Your task to perform on an android device: Open Chrome and go to settings Image 0: 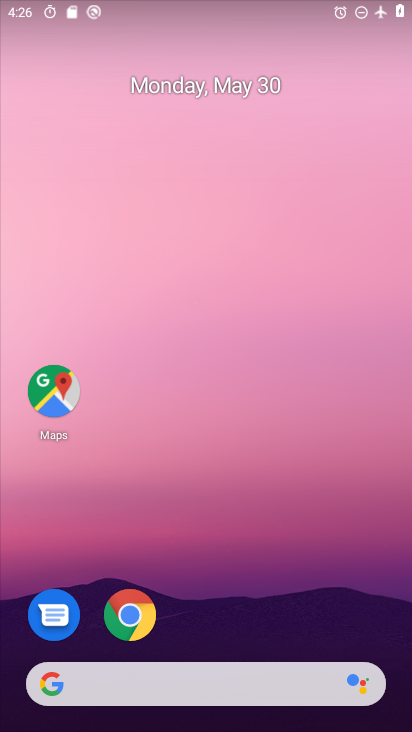
Step 0: click (129, 614)
Your task to perform on an android device: Open Chrome and go to settings Image 1: 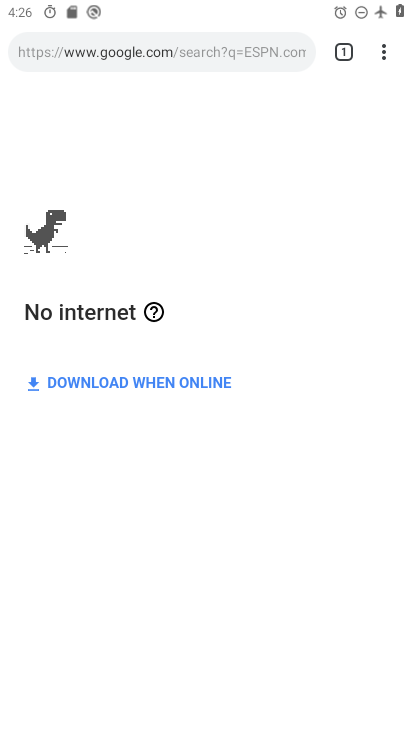
Step 1: click (384, 49)
Your task to perform on an android device: Open Chrome and go to settings Image 2: 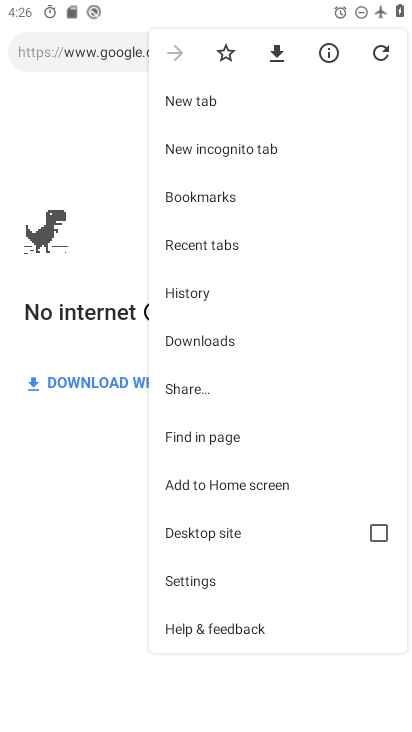
Step 2: click (202, 577)
Your task to perform on an android device: Open Chrome and go to settings Image 3: 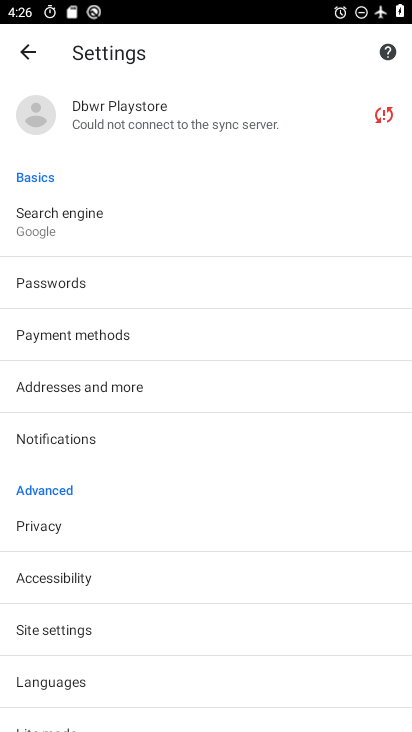
Step 3: task complete